Your task to perform on an android device: turn off smart reply in the gmail app Image 0: 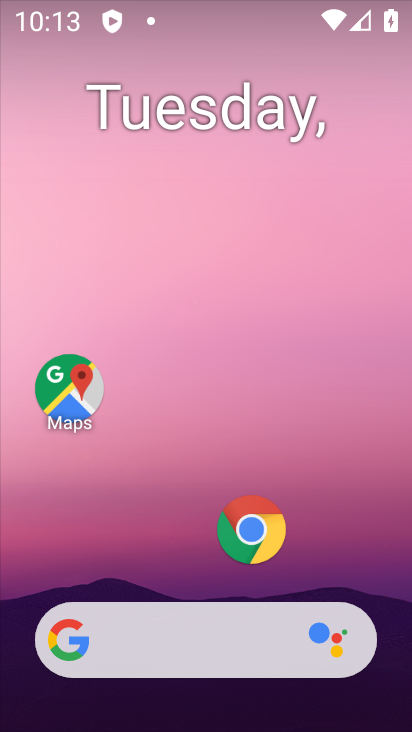
Step 0: drag from (155, 536) to (195, 213)
Your task to perform on an android device: turn off smart reply in the gmail app Image 1: 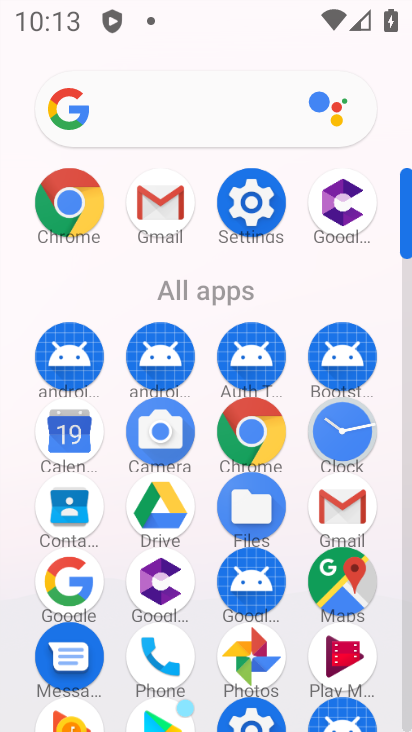
Step 1: click (177, 189)
Your task to perform on an android device: turn off smart reply in the gmail app Image 2: 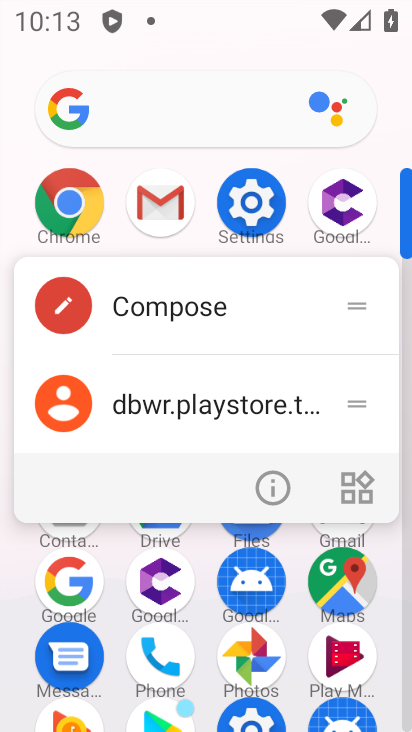
Step 2: click (156, 218)
Your task to perform on an android device: turn off smart reply in the gmail app Image 3: 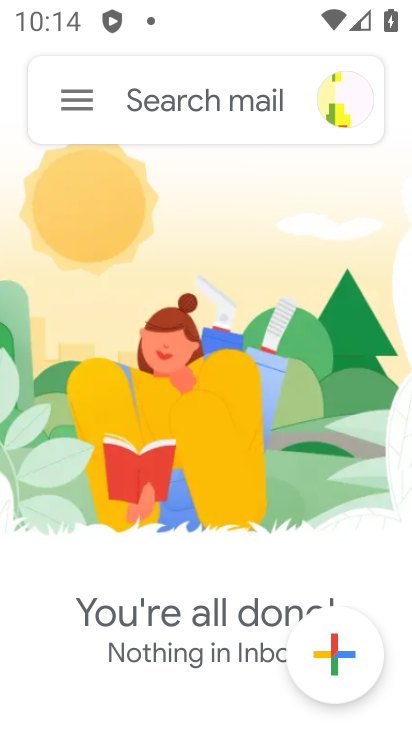
Step 3: click (68, 101)
Your task to perform on an android device: turn off smart reply in the gmail app Image 4: 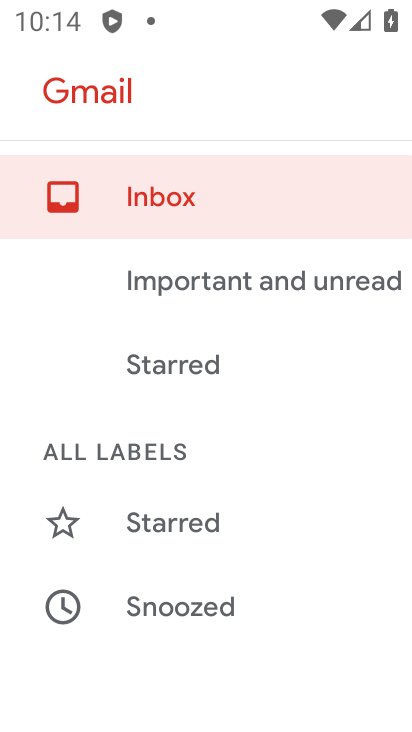
Step 4: drag from (198, 608) to (289, 270)
Your task to perform on an android device: turn off smart reply in the gmail app Image 5: 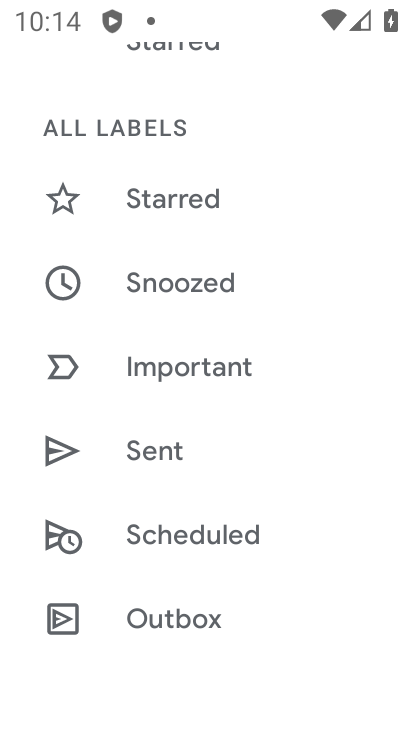
Step 5: drag from (255, 570) to (321, 228)
Your task to perform on an android device: turn off smart reply in the gmail app Image 6: 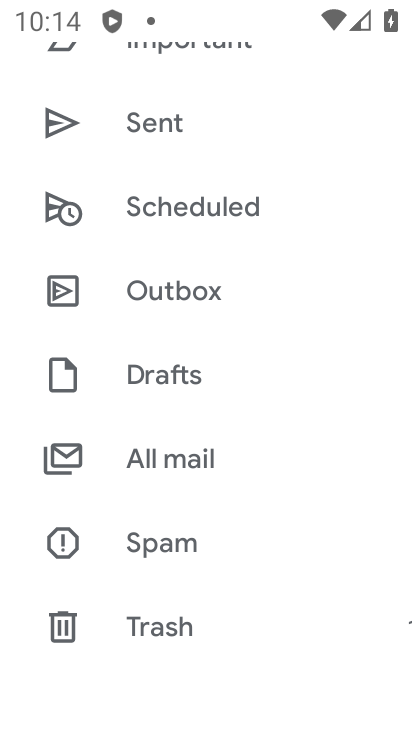
Step 6: drag from (232, 567) to (262, 283)
Your task to perform on an android device: turn off smart reply in the gmail app Image 7: 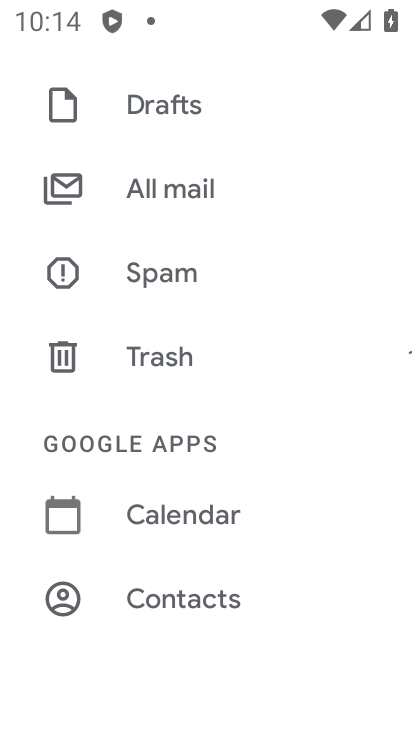
Step 7: drag from (189, 591) to (247, 277)
Your task to perform on an android device: turn off smart reply in the gmail app Image 8: 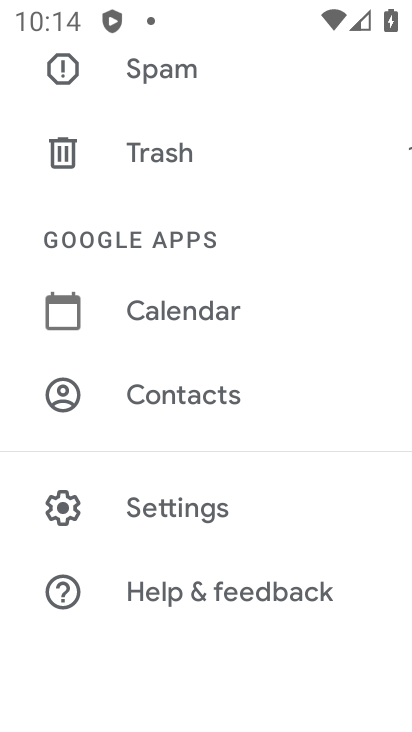
Step 8: click (181, 511)
Your task to perform on an android device: turn off smart reply in the gmail app Image 9: 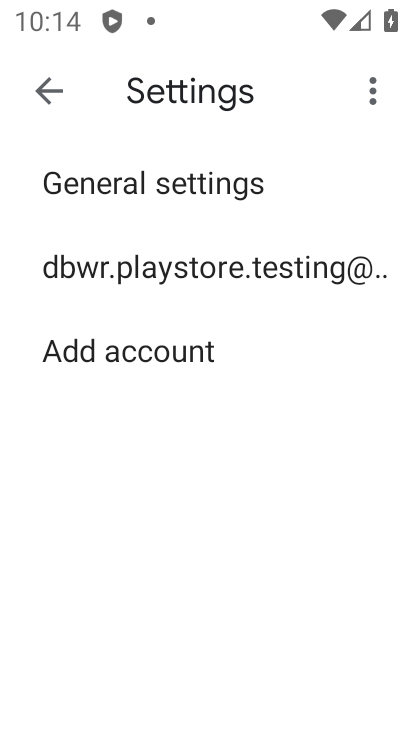
Step 9: click (166, 270)
Your task to perform on an android device: turn off smart reply in the gmail app Image 10: 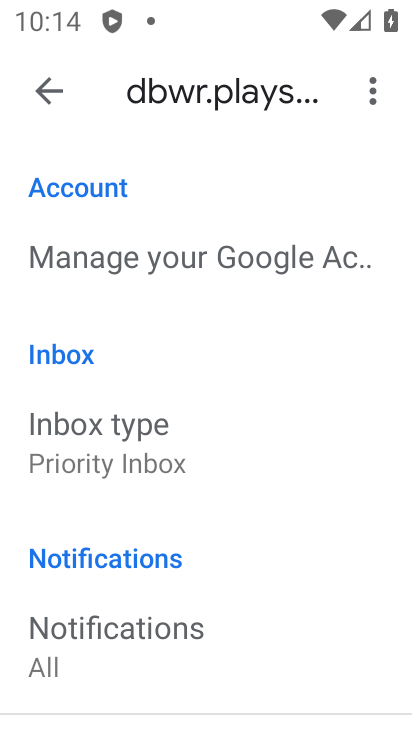
Step 10: drag from (170, 543) to (213, 308)
Your task to perform on an android device: turn off smart reply in the gmail app Image 11: 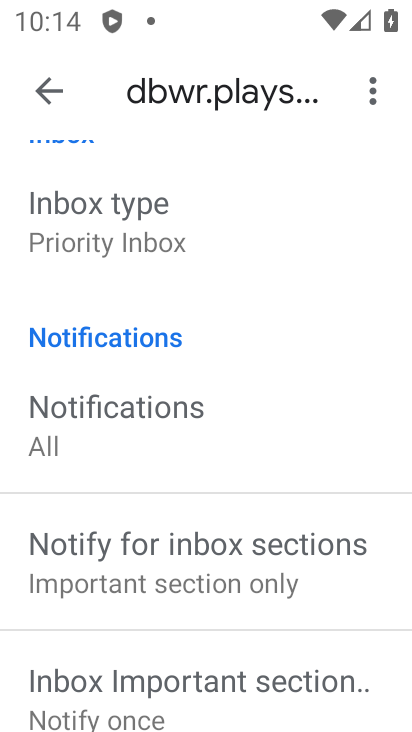
Step 11: drag from (157, 609) to (191, 353)
Your task to perform on an android device: turn off smart reply in the gmail app Image 12: 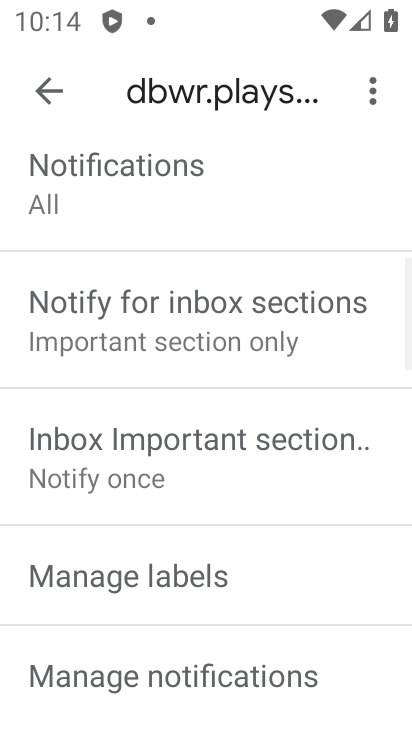
Step 12: drag from (156, 639) to (231, 353)
Your task to perform on an android device: turn off smart reply in the gmail app Image 13: 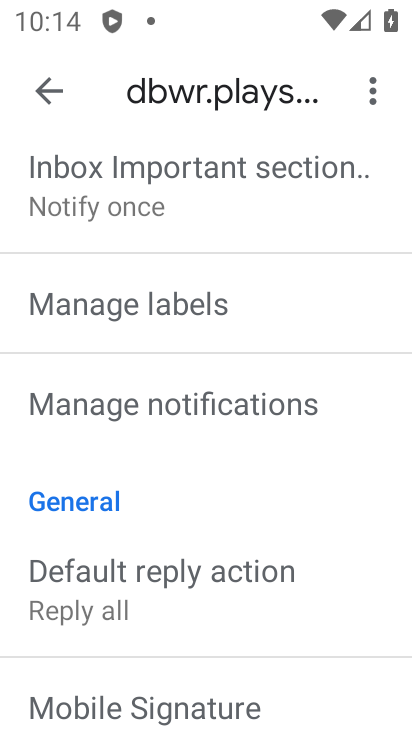
Step 13: drag from (200, 609) to (251, 331)
Your task to perform on an android device: turn off smart reply in the gmail app Image 14: 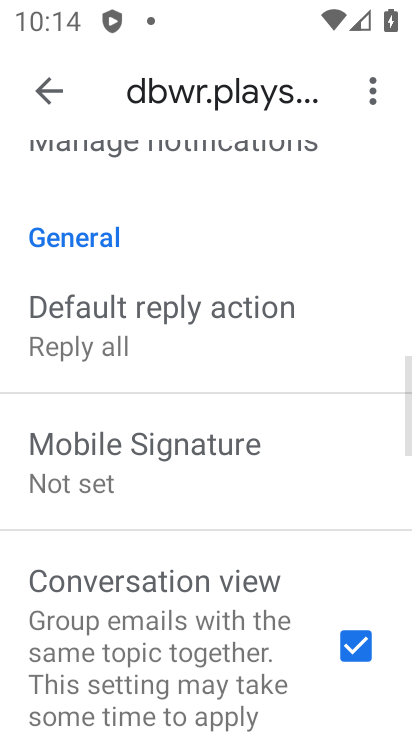
Step 14: drag from (177, 642) to (240, 368)
Your task to perform on an android device: turn off smart reply in the gmail app Image 15: 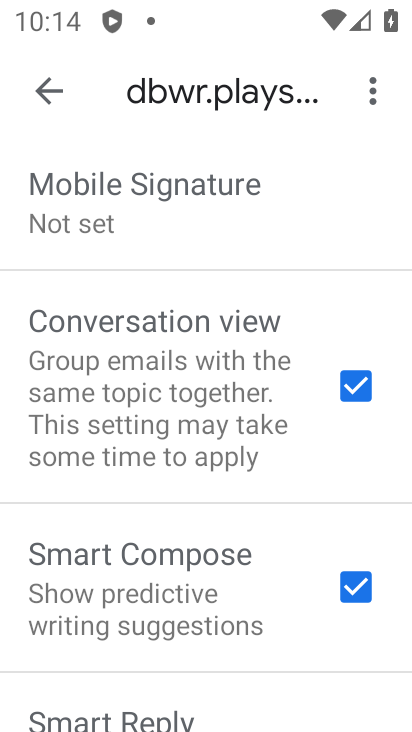
Step 15: drag from (220, 622) to (253, 384)
Your task to perform on an android device: turn off smart reply in the gmail app Image 16: 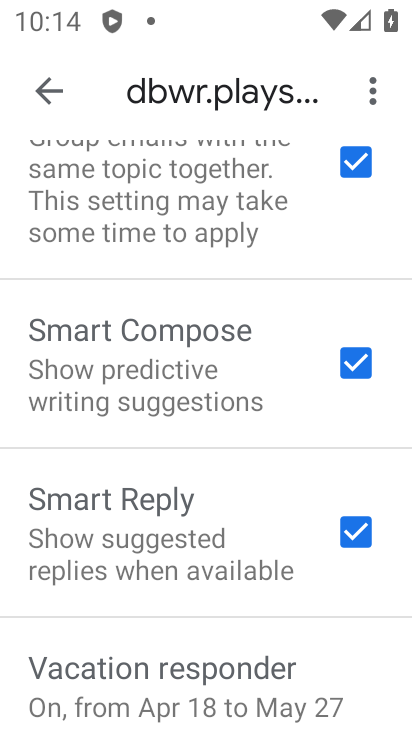
Step 16: click (350, 521)
Your task to perform on an android device: turn off smart reply in the gmail app Image 17: 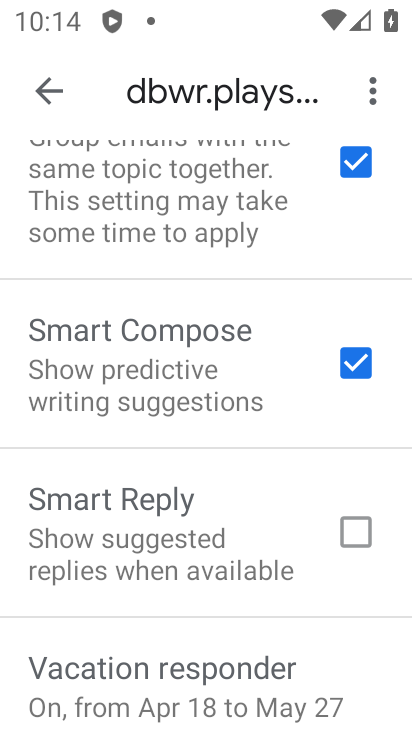
Step 17: task complete